Your task to perform on an android device: Open Amazon Image 0: 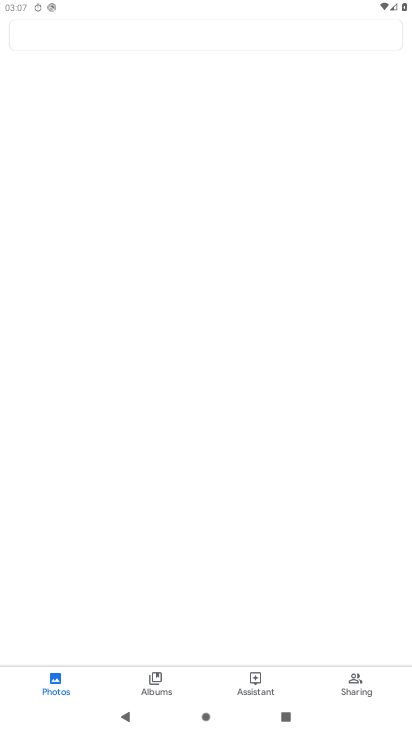
Step 0: click (130, 629)
Your task to perform on an android device: Open Amazon Image 1: 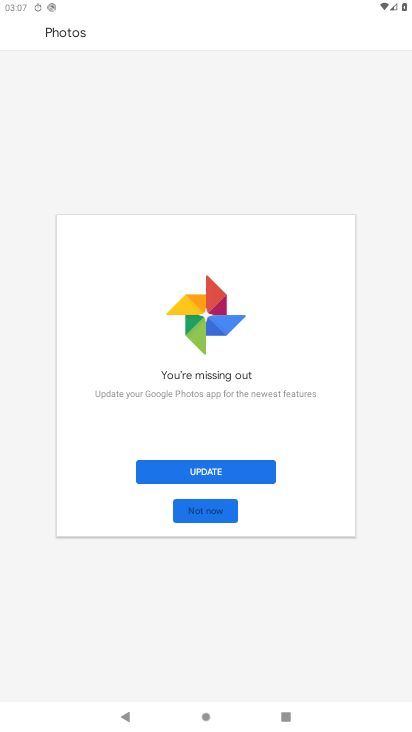
Step 1: press home button
Your task to perform on an android device: Open Amazon Image 2: 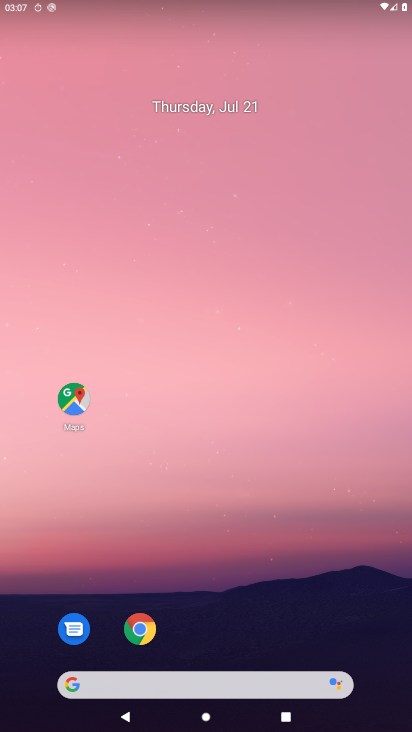
Step 2: click (103, 684)
Your task to perform on an android device: Open Amazon Image 3: 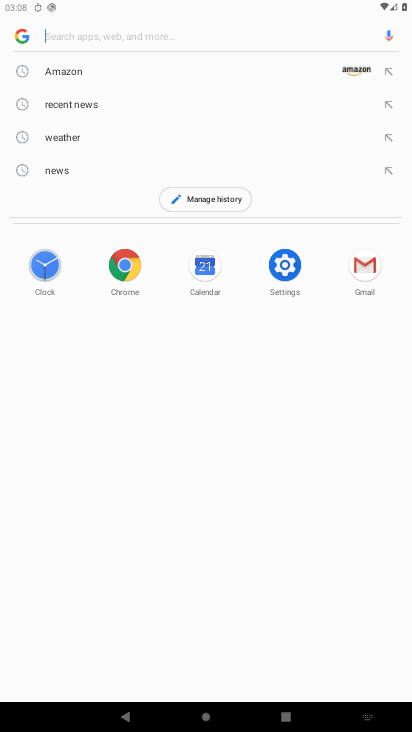
Step 3: click (62, 59)
Your task to perform on an android device: Open Amazon Image 4: 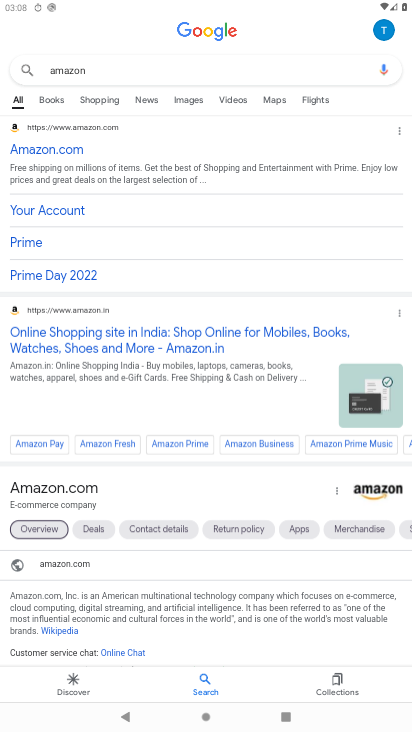
Step 4: task complete